Your task to perform on an android device: toggle notification dots Image 0: 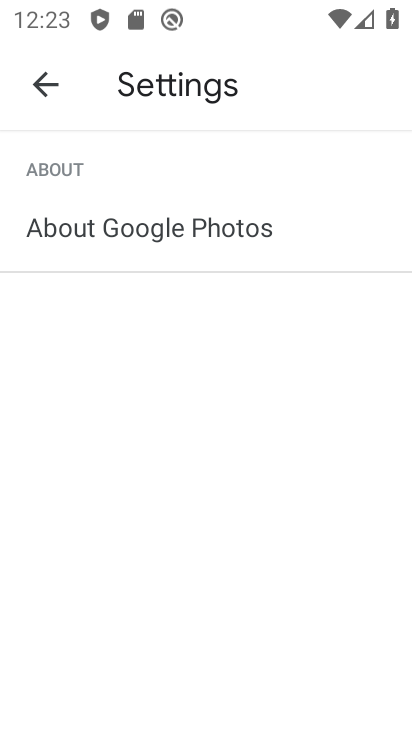
Step 0: press home button
Your task to perform on an android device: toggle notification dots Image 1: 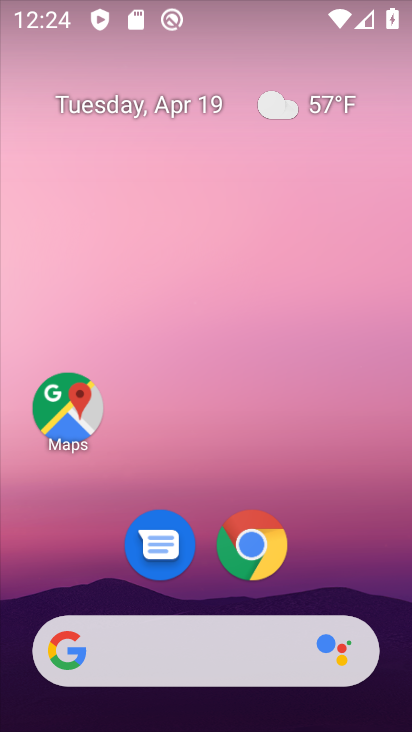
Step 1: drag from (189, 416) to (310, 19)
Your task to perform on an android device: toggle notification dots Image 2: 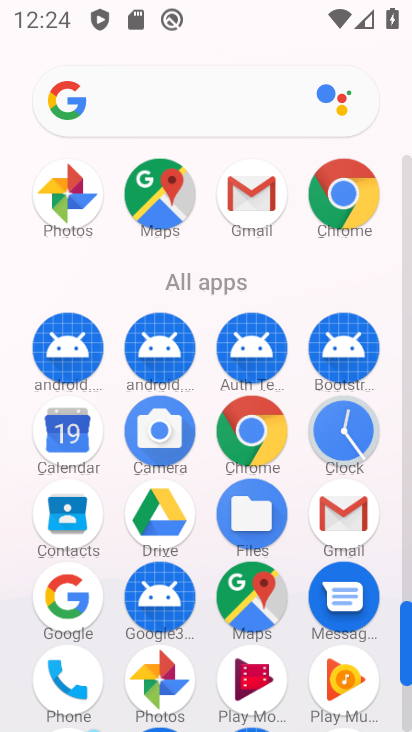
Step 2: drag from (194, 597) to (259, 85)
Your task to perform on an android device: toggle notification dots Image 3: 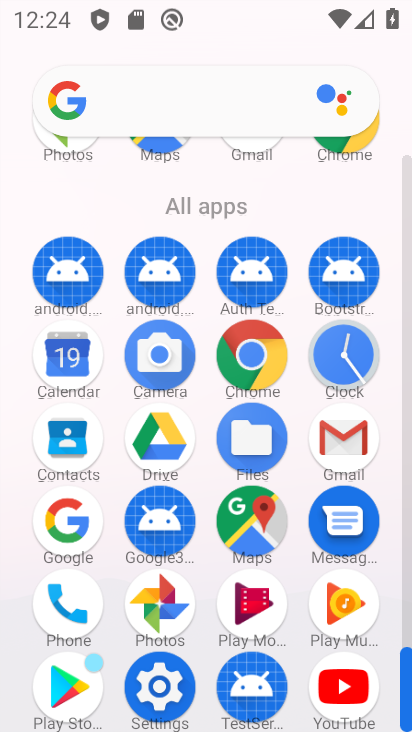
Step 3: click (161, 689)
Your task to perform on an android device: toggle notification dots Image 4: 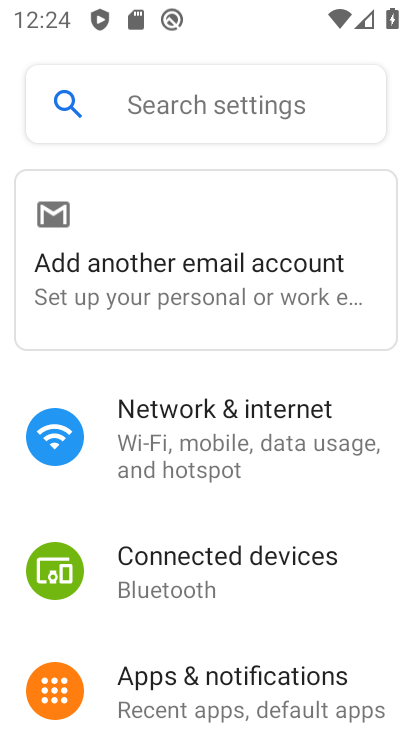
Step 4: click (182, 684)
Your task to perform on an android device: toggle notification dots Image 5: 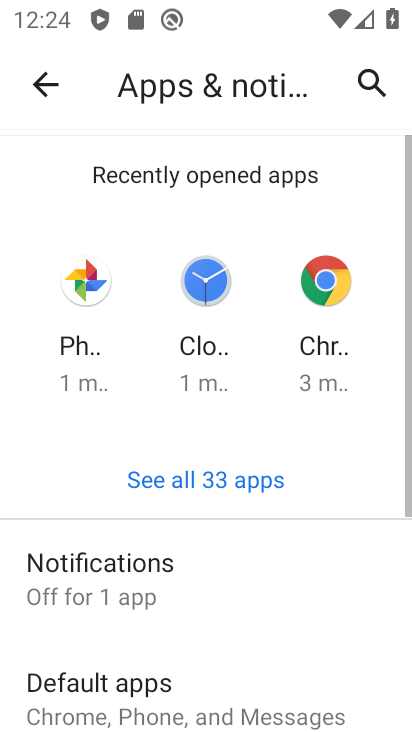
Step 5: drag from (208, 597) to (266, 233)
Your task to perform on an android device: toggle notification dots Image 6: 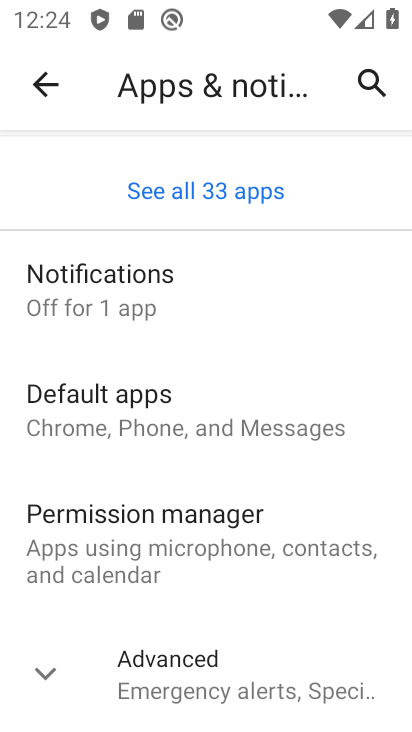
Step 6: click (124, 295)
Your task to perform on an android device: toggle notification dots Image 7: 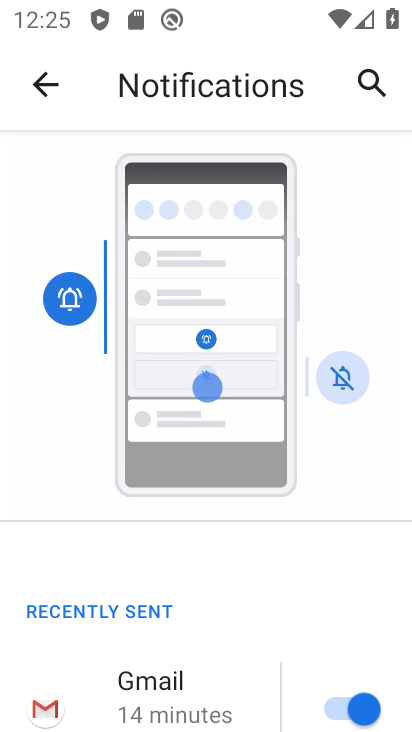
Step 7: drag from (187, 684) to (323, 101)
Your task to perform on an android device: toggle notification dots Image 8: 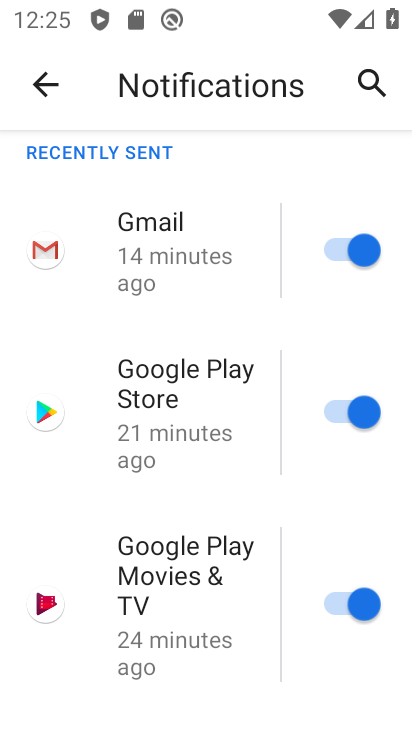
Step 8: drag from (179, 541) to (279, 96)
Your task to perform on an android device: toggle notification dots Image 9: 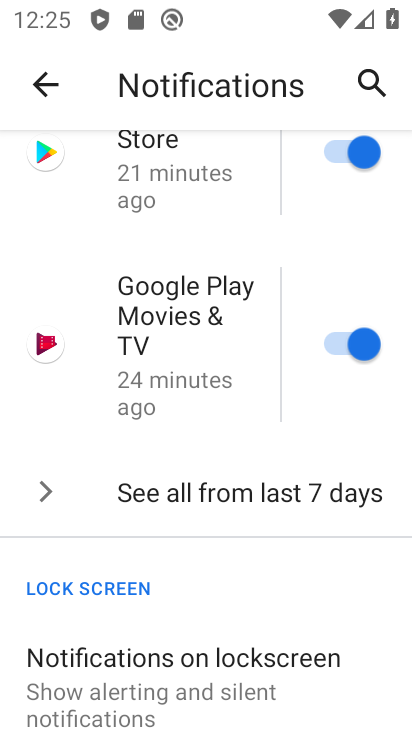
Step 9: drag from (209, 556) to (306, 39)
Your task to perform on an android device: toggle notification dots Image 10: 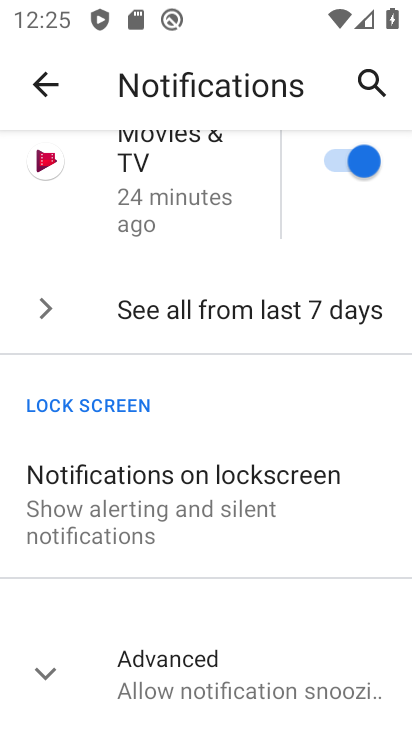
Step 10: click (222, 687)
Your task to perform on an android device: toggle notification dots Image 11: 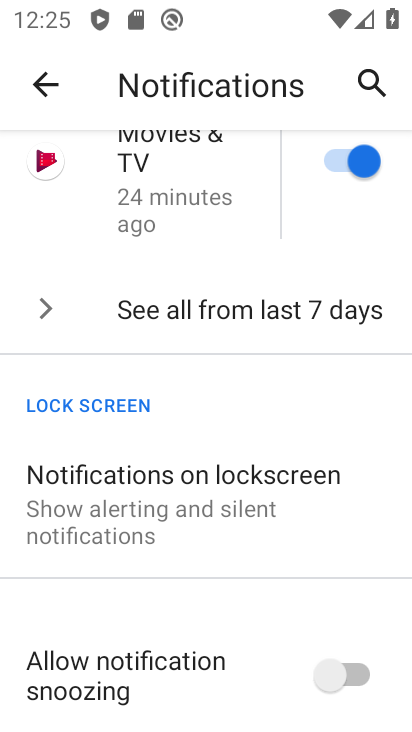
Step 11: drag from (140, 641) to (247, 142)
Your task to perform on an android device: toggle notification dots Image 12: 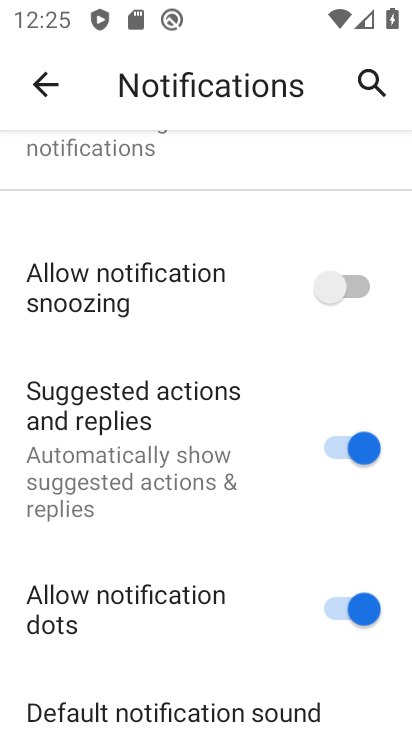
Step 12: click (362, 612)
Your task to perform on an android device: toggle notification dots Image 13: 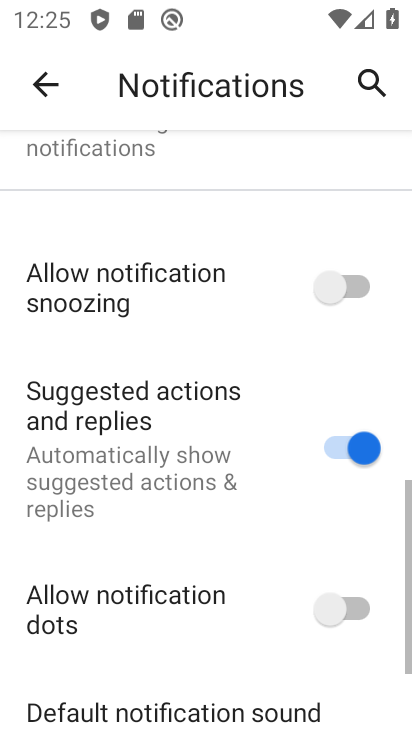
Step 13: task complete